Your task to perform on an android device: Turn on the flashlight Image 0: 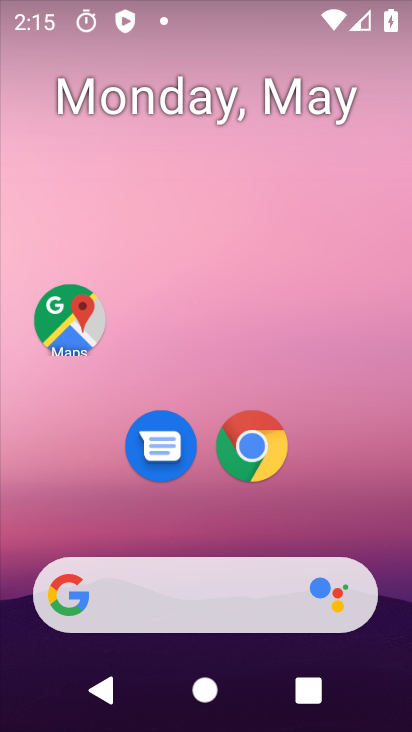
Step 0: drag from (218, 15) to (251, 341)
Your task to perform on an android device: Turn on the flashlight Image 1: 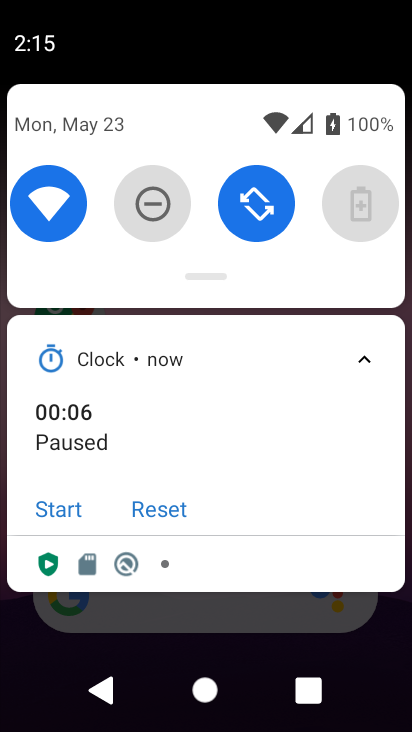
Step 1: task complete